Your task to perform on an android device: search for starred emails in the gmail app Image 0: 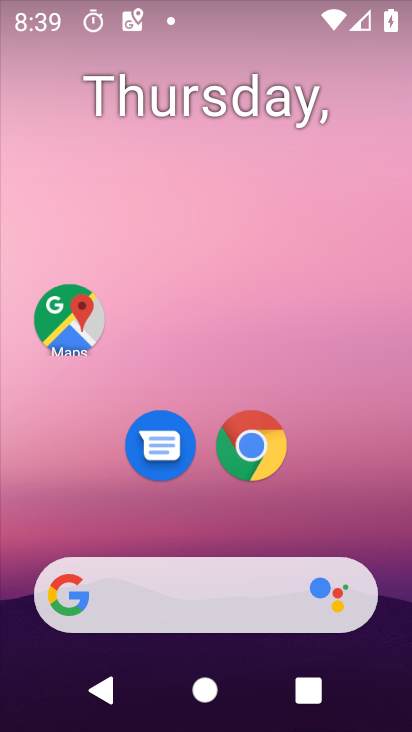
Step 0: drag from (122, 401) to (245, 151)
Your task to perform on an android device: search for starred emails in the gmail app Image 1: 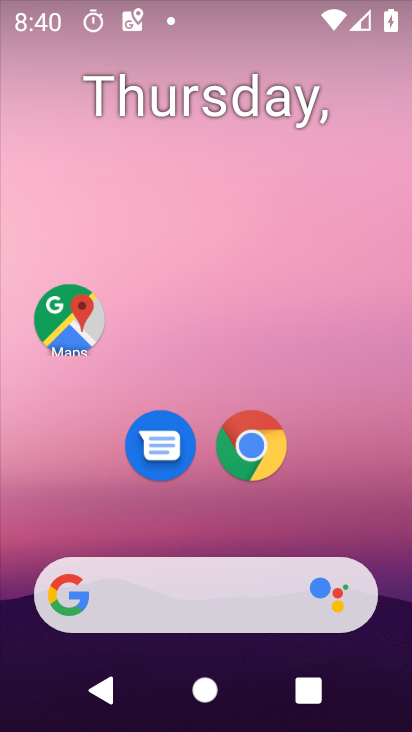
Step 1: drag from (77, 479) to (311, 164)
Your task to perform on an android device: search for starred emails in the gmail app Image 2: 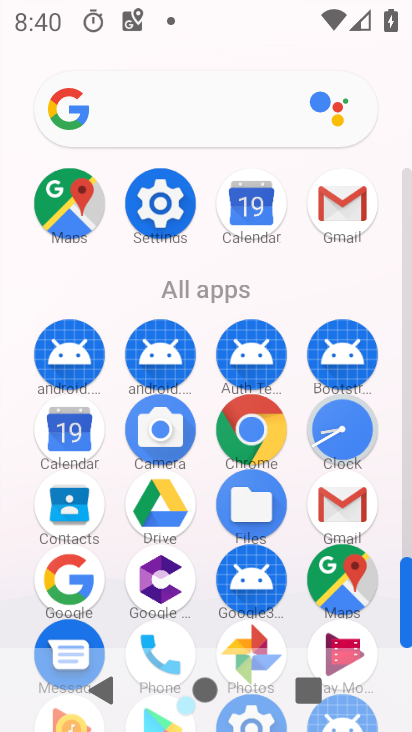
Step 2: click (351, 204)
Your task to perform on an android device: search for starred emails in the gmail app Image 3: 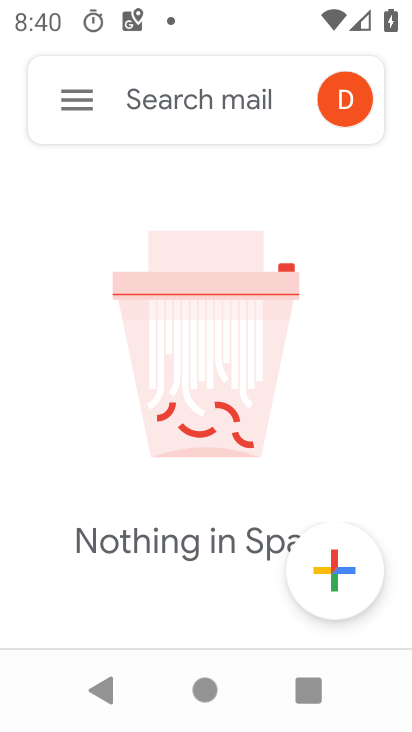
Step 3: click (77, 103)
Your task to perform on an android device: search for starred emails in the gmail app Image 4: 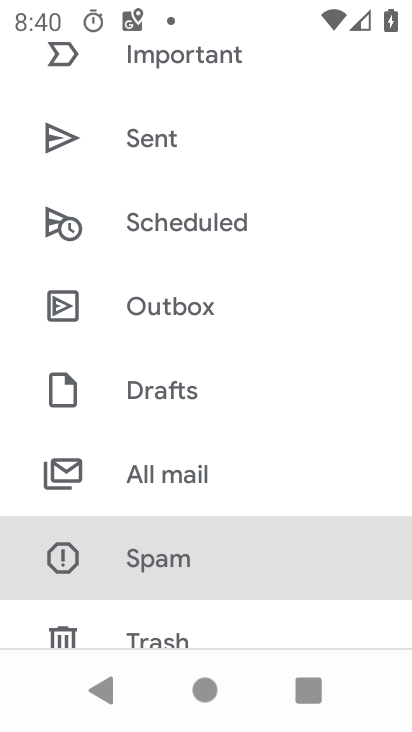
Step 4: drag from (191, 588) to (313, 185)
Your task to perform on an android device: search for starred emails in the gmail app Image 5: 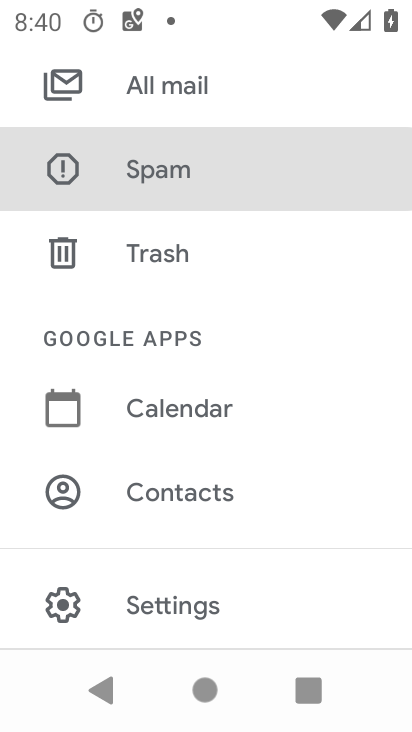
Step 5: drag from (179, 600) to (249, 273)
Your task to perform on an android device: search for starred emails in the gmail app Image 6: 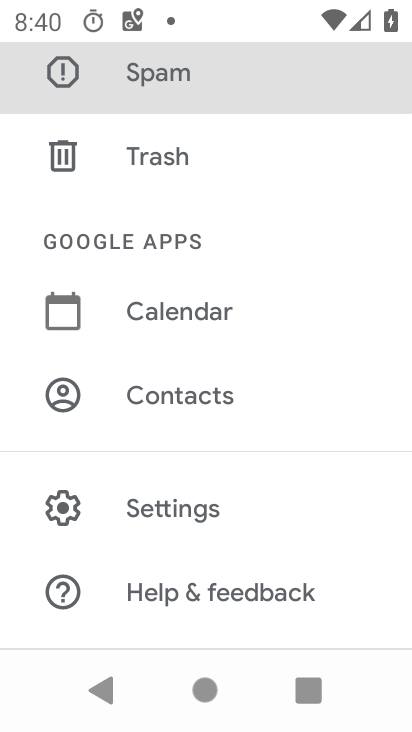
Step 6: drag from (260, 169) to (289, 562)
Your task to perform on an android device: search for starred emails in the gmail app Image 7: 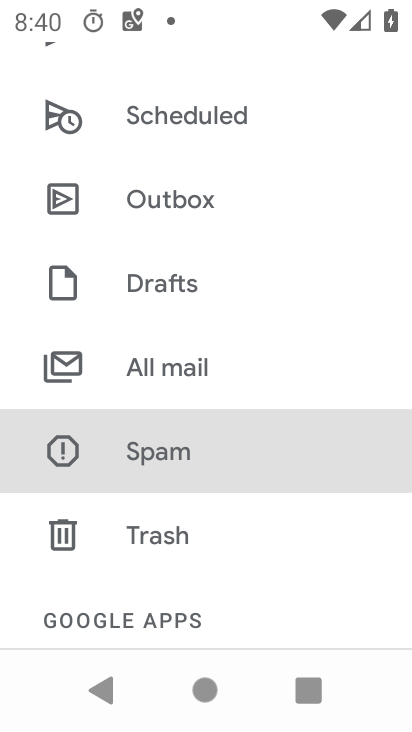
Step 7: drag from (267, 212) to (273, 556)
Your task to perform on an android device: search for starred emails in the gmail app Image 8: 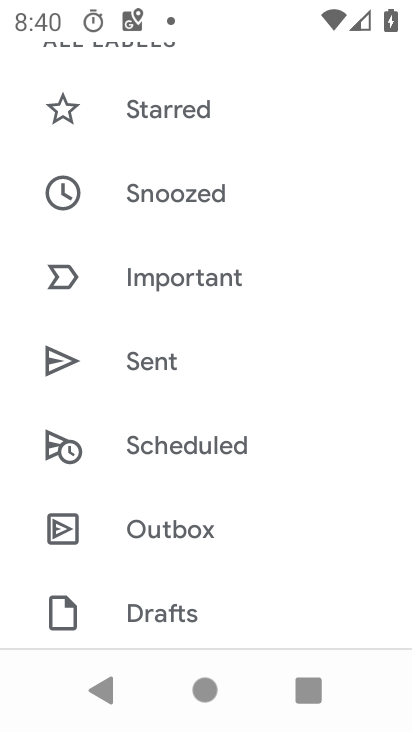
Step 8: click (230, 117)
Your task to perform on an android device: search for starred emails in the gmail app Image 9: 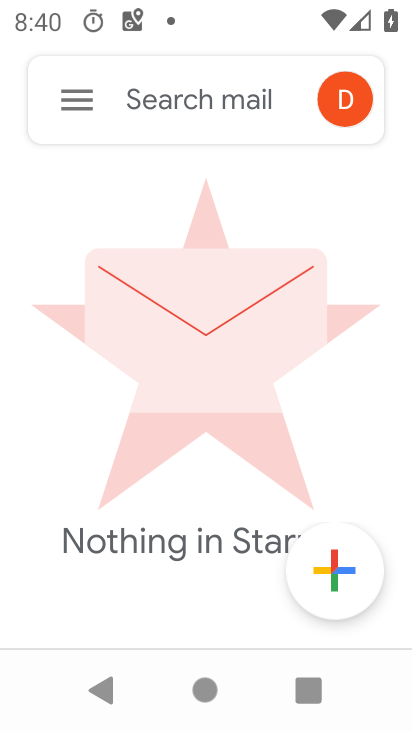
Step 9: task complete